Your task to perform on an android device: set default search engine in the chrome app Image 0: 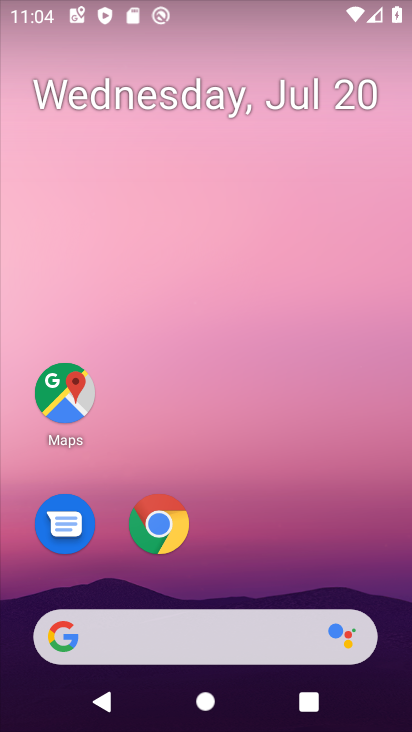
Step 0: click (169, 528)
Your task to perform on an android device: set default search engine in the chrome app Image 1: 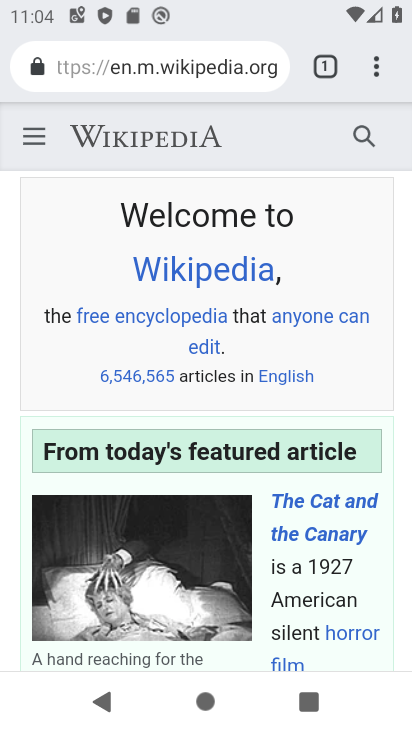
Step 1: click (375, 70)
Your task to perform on an android device: set default search engine in the chrome app Image 2: 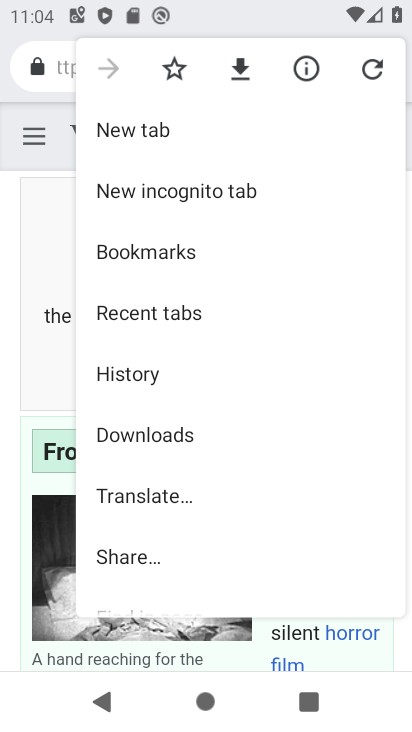
Step 2: drag from (258, 455) to (244, 156)
Your task to perform on an android device: set default search engine in the chrome app Image 3: 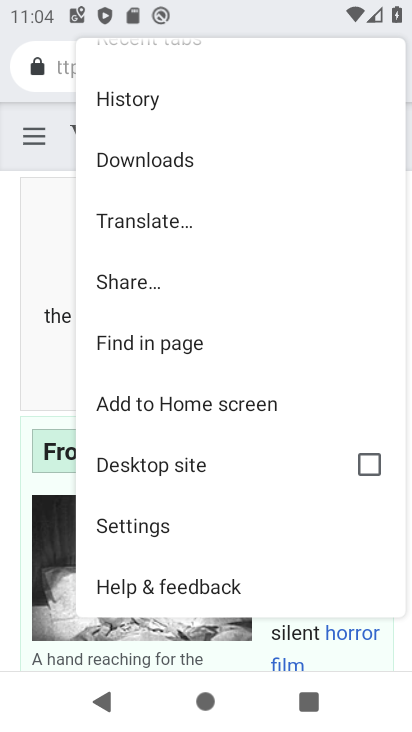
Step 3: click (164, 521)
Your task to perform on an android device: set default search engine in the chrome app Image 4: 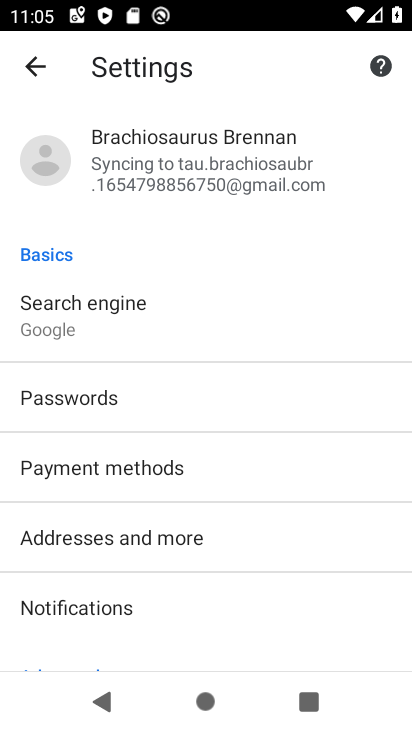
Step 4: click (94, 306)
Your task to perform on an android device: set default search engine in the chrome app Image 5: 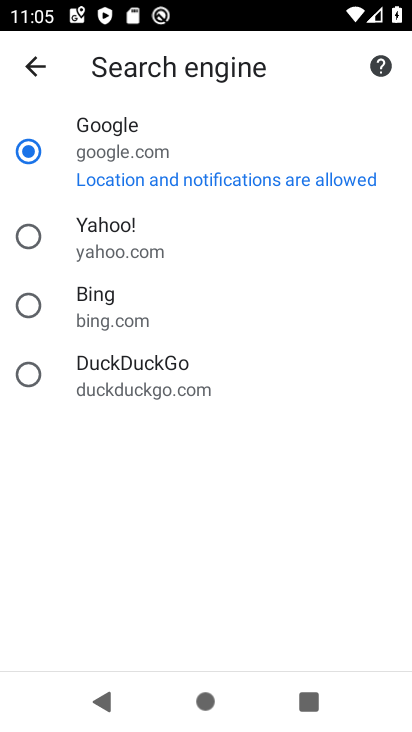
Step 5: task complete